Your task to perform on an android device: Open wifi settings Image 0: 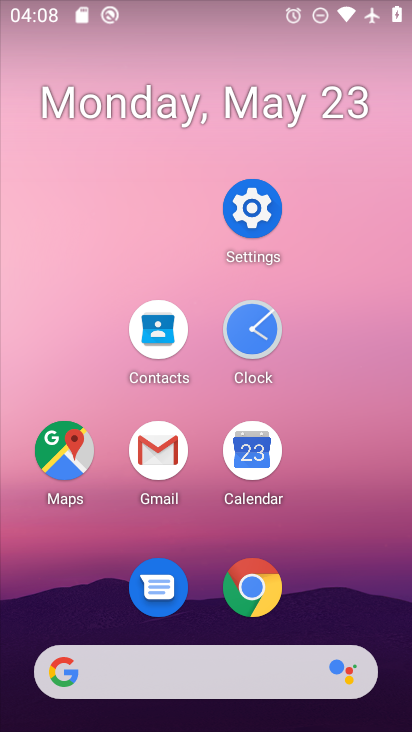
Step 0: click (158, 480)
Your task to perform on an android device: Open wifi settings Image 1: 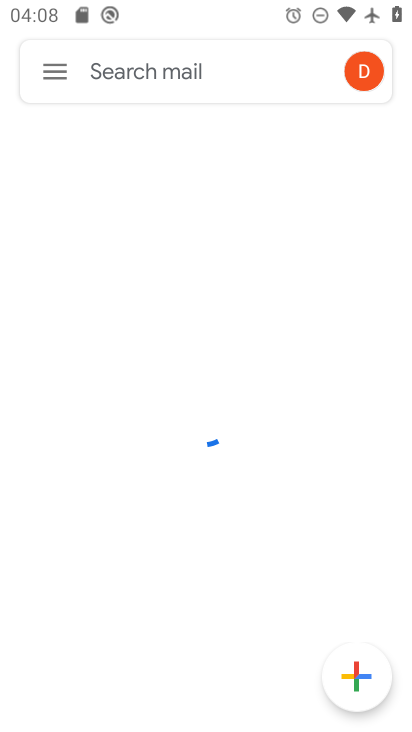
Step 1: press home button
Your task to perform on an android device: Open wifi settings Image 2: 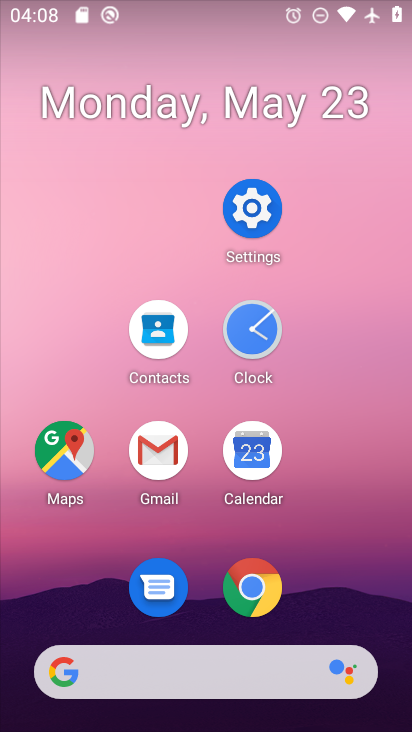
Step 2: click (251, 205)
Your task to perform on an android device: Open wifi settings Image 3: 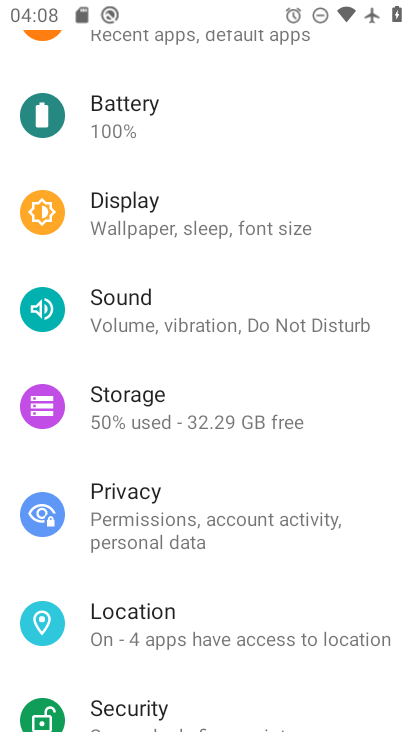
Step 3: drag from (191, 136) to (191, 702)
Your task to perform on an android device: Open wifi settings Image 4: 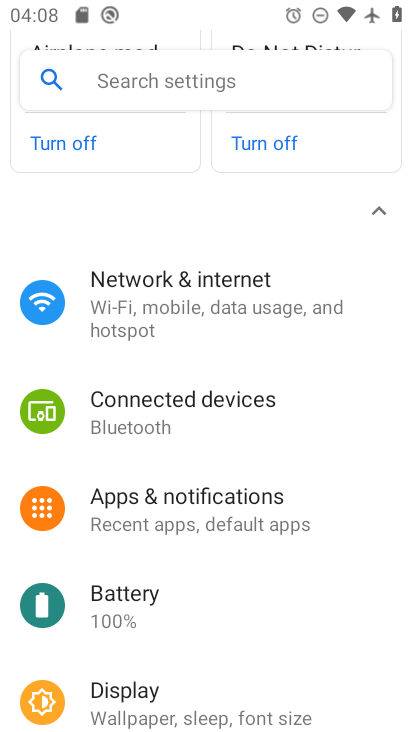
Step 4: click (192, 298)
Your task to perform on an android device: Open wifi settings Image 5: 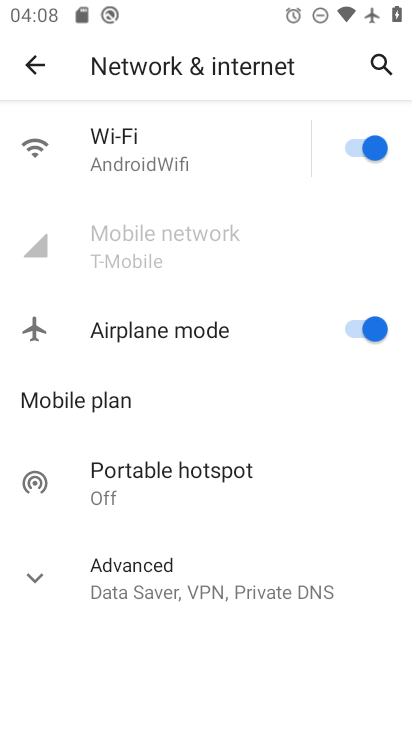
Step 5: task complete